Your task to perform on an android device: star an email in the gmail app Image 0: 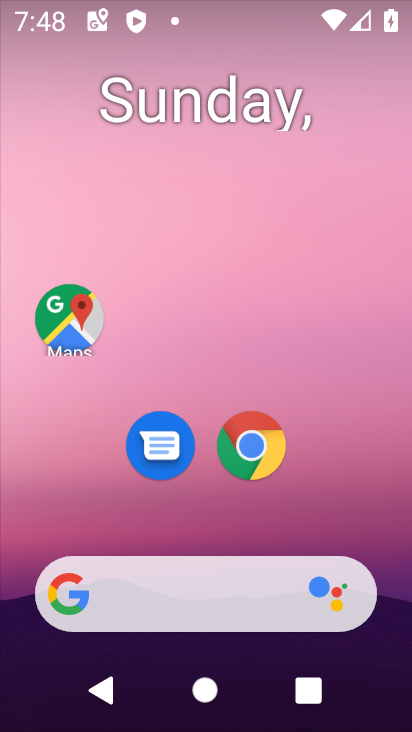
Step 0: drag from (177, 606) to (229, 243)
Your task to perform on an android device: star an email in the gmail app Image 1: 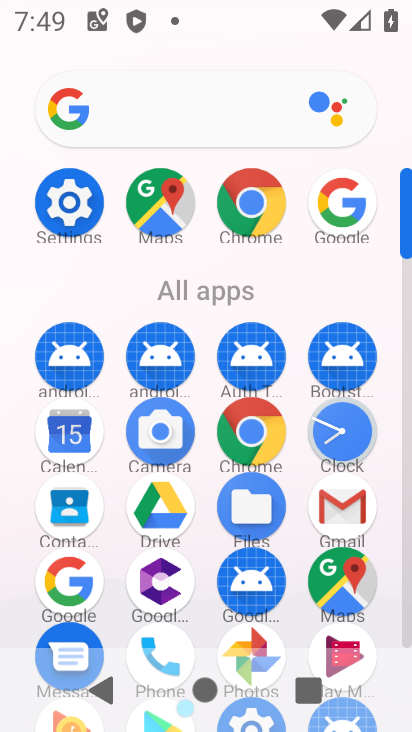
Step 1: click (349, 516)
Your task to perform on an android device: star an email in the gmail app Image 2: 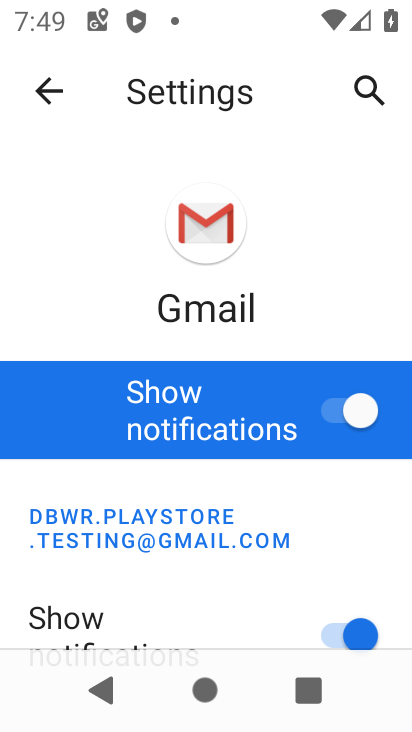
Step 2: click (48, 105)
Your task to perform on an android device: star an email in the gmail app Image 3: 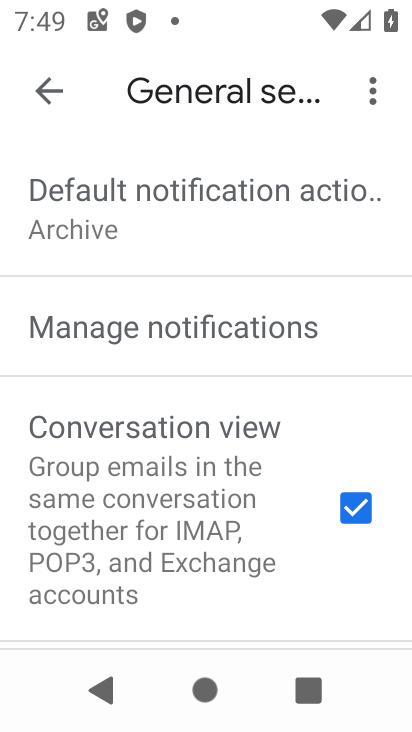
Step 3: click (53, 111)
Your task to perform on an android device: star an email in the gmail app Image 4: 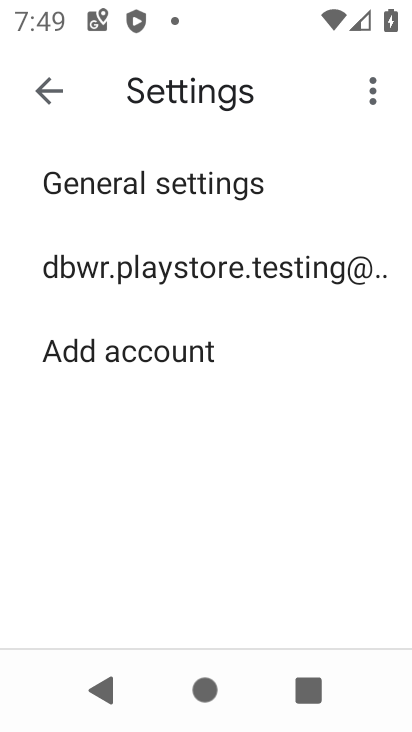
Step 4: click (44, 97)
Your task to perform on an android device: star an email in the gmail app Image 5: 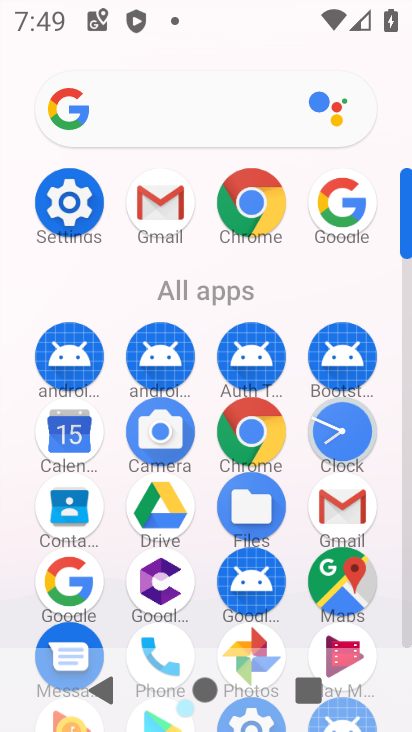
Step 5: click (361, 530)
Your task to perform on an android device: star an email in the gmail app Image 6: 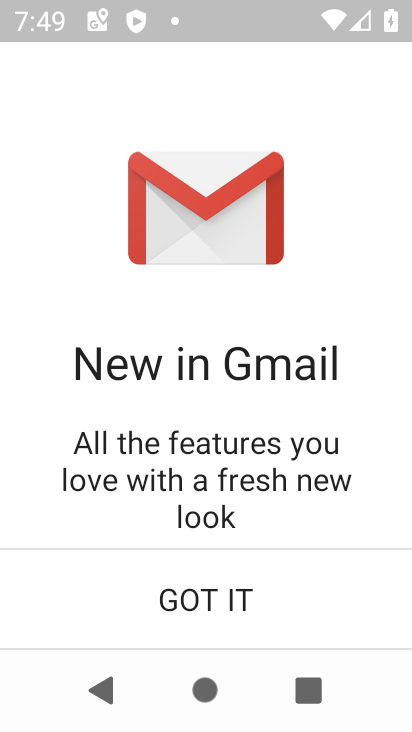
Step 6: click (236, 599)
Your task to perform on an android device: star an email in the gmail app Image 7: 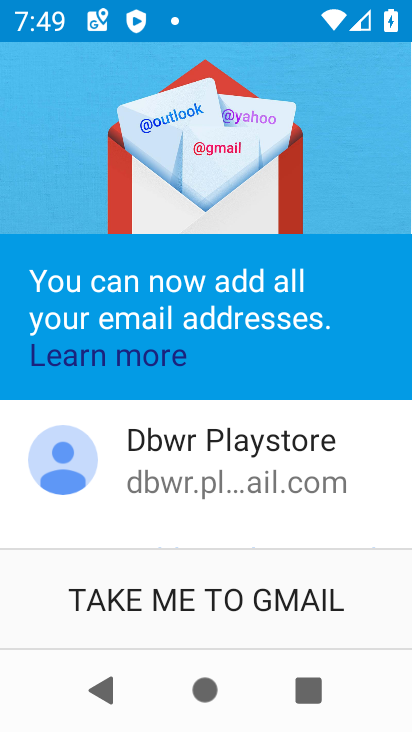
Step 7: click (234, 599)
Your task to perform on an android device: star an email in the gmail app Image 8: 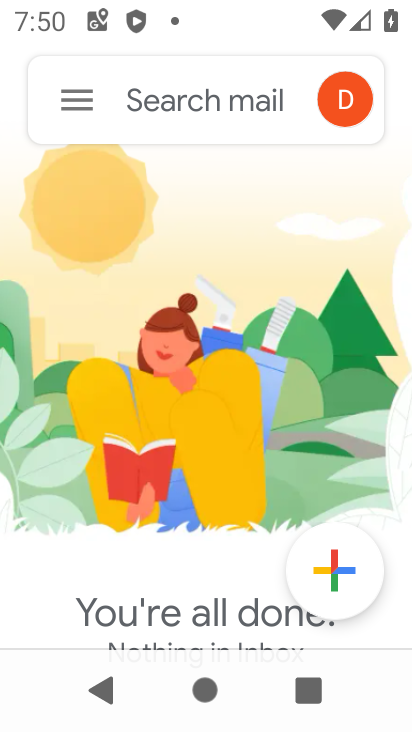
Step 8: click (61, 109)
Your task to perform on an android device: star an email in the gmail app Image 9: 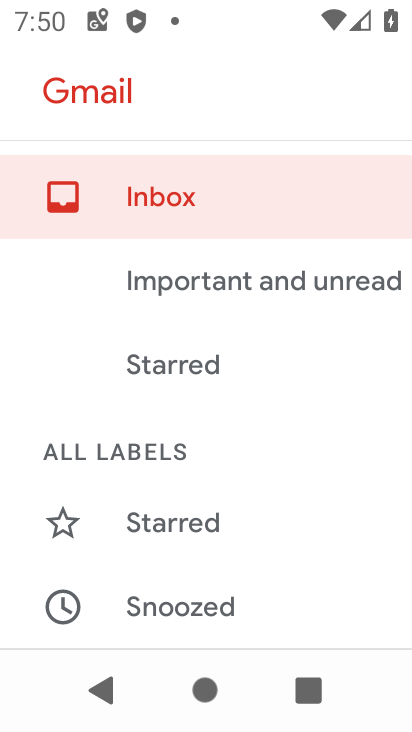
Step 9: drag from (262, 524) to (271, 218)
Your task to perform on an android device: star an email in the gmail app Image 10: 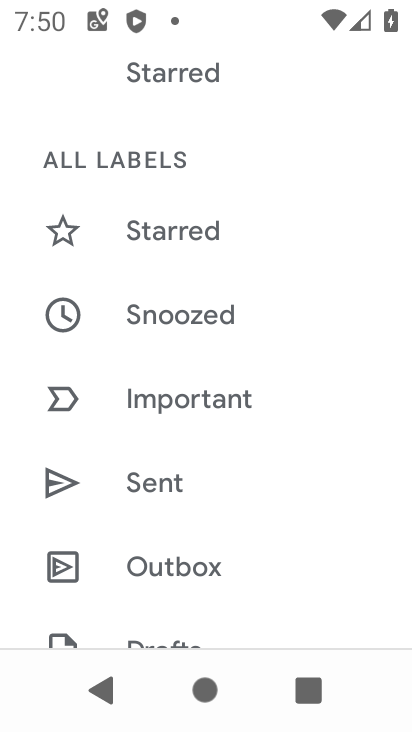
Step 10: drag from (247, 435) to (257, 287)
Your task to perform on an android device: star an email in the gmail app Image 11: 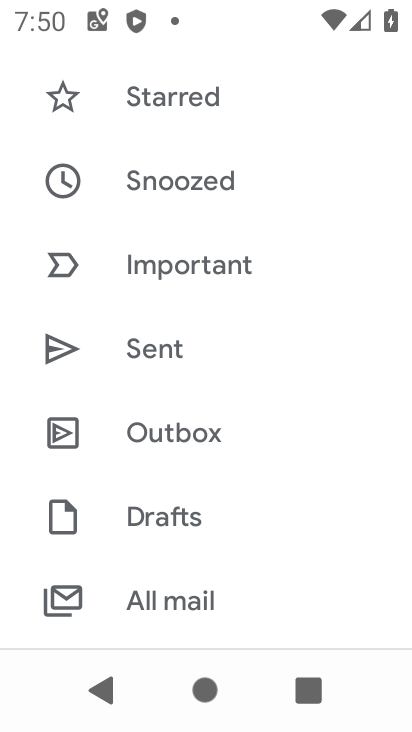
Step 11: click (176, 625)
Your task to perform on an android device: star an email in the gmail app Image 12: 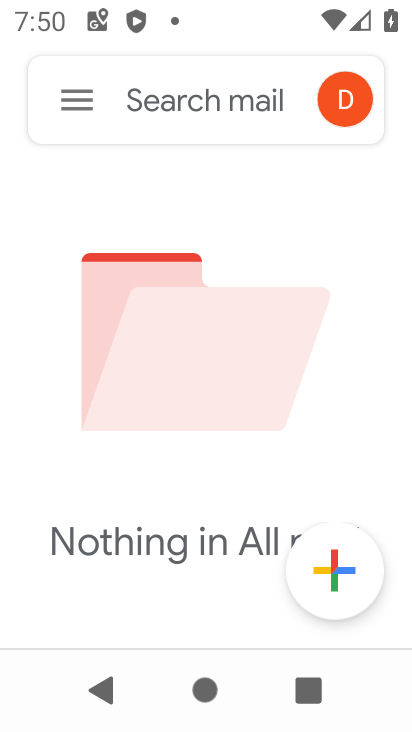
Step 12: task complete